Your task to perform on an android device: turn off translation in the chrome app Image 0: 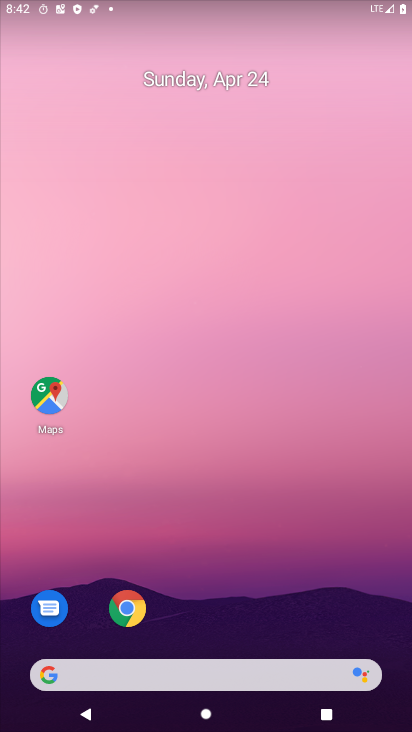
Step 0: click (128, 605)
Your task to perform on an android device: turn off translation in the chrome app Image 1: 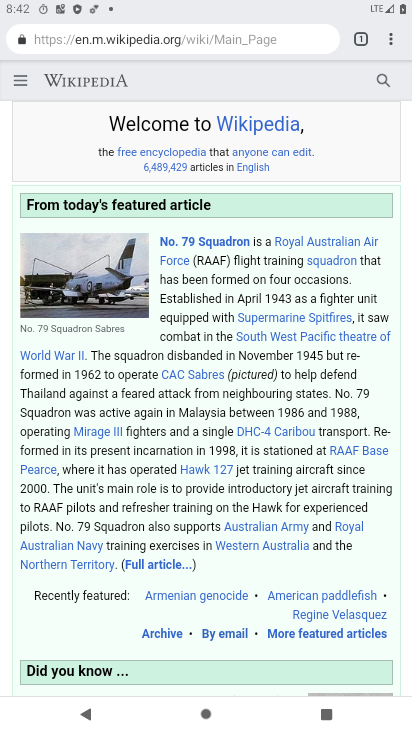
Step 1: click (388, 33)
Your task to perform on an android device: turn off translation in the chrome app Image 2: 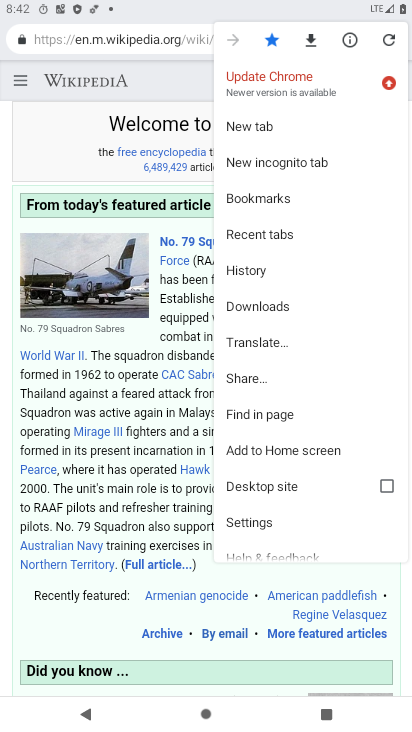
Step 2: click (278, 516)
Your task to perform on an android device: turn off translation in the chrome app Image 3: 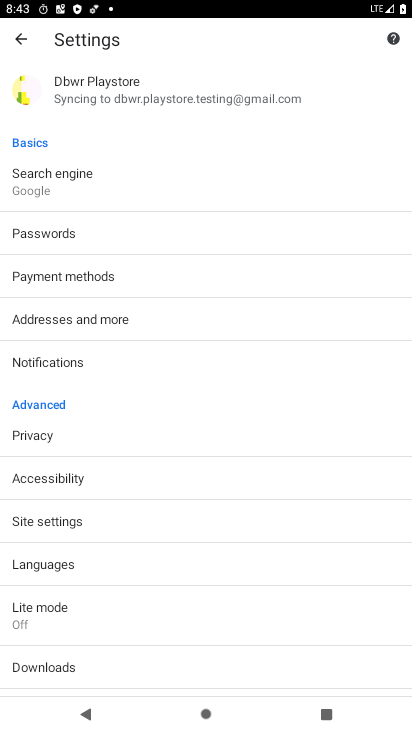
Step 3: click (250, 561)
Your task to perform on an android device: turn off translation in the chrome app Image 4: 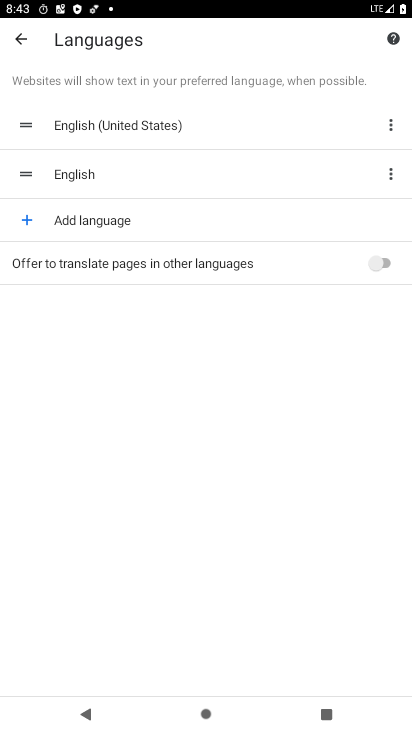
Step 4: task complete